Your task to perform on an android device: see tabs open on other devices in the chrome app Image 0: 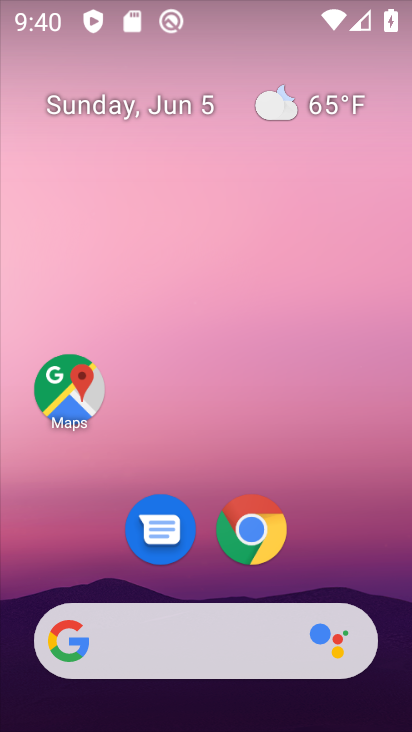
Step 0: click (272, 534)
Your task to perform on an android device: see tabs open on other devices in the chrome app Image 1: 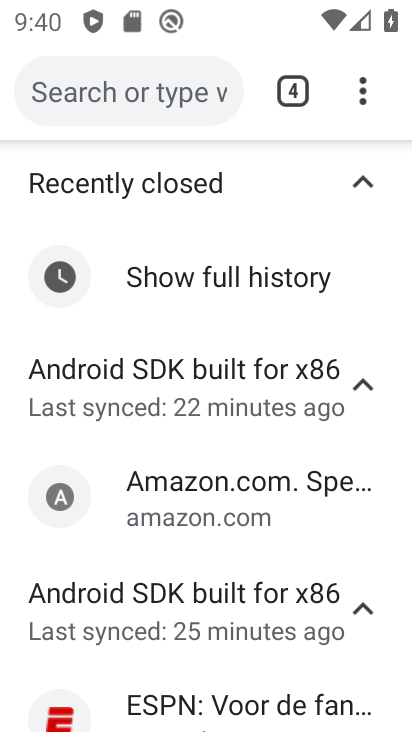
Step 1: click (362, 91)
Your task to perform on an android device: see tabs open on other devices in the chrome app Image 2: 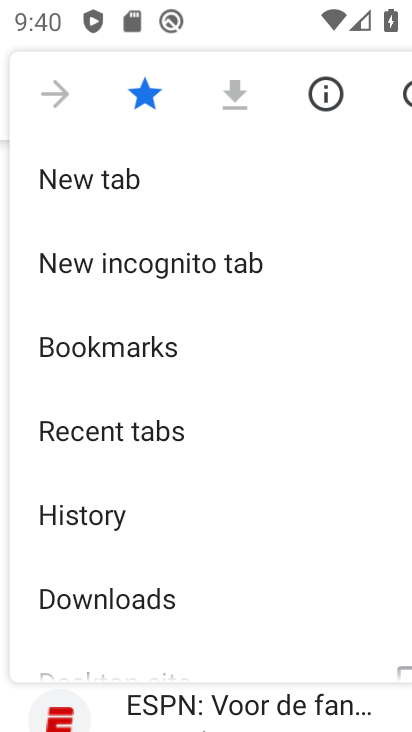
Step 2: click (125, 421)
Your task to perform on an android device: see tabs open on other devices in the chrome app Image 3: 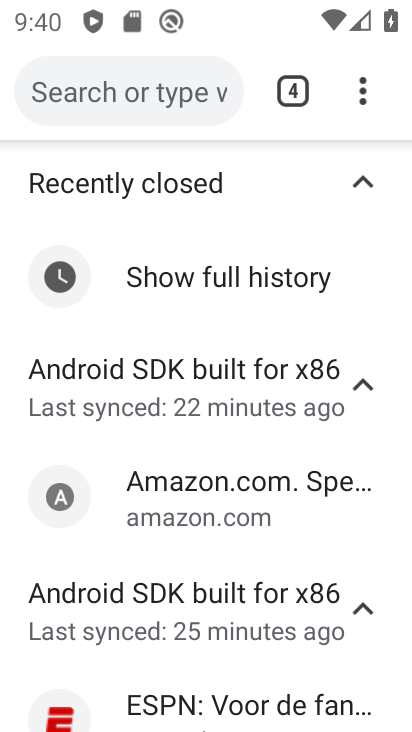
Step 3: click (359, 88)
Your task to perform on an android device: see tabs open on other devices in the chrome app Image 4: 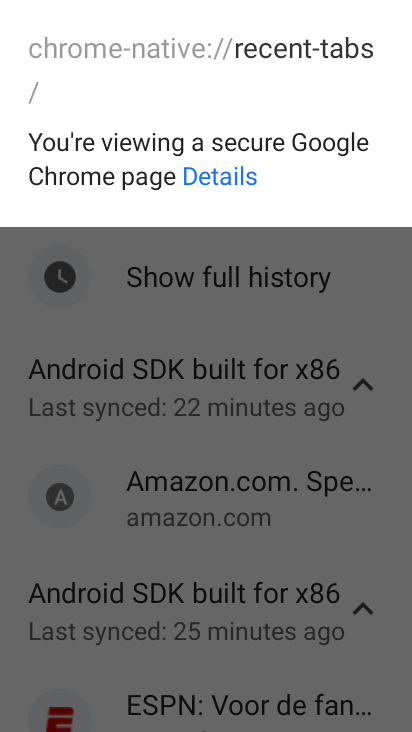
Step 4: click (399, 290)
Your task to perform on an android device: see tabs open on other devices in the chrome app Image 5: 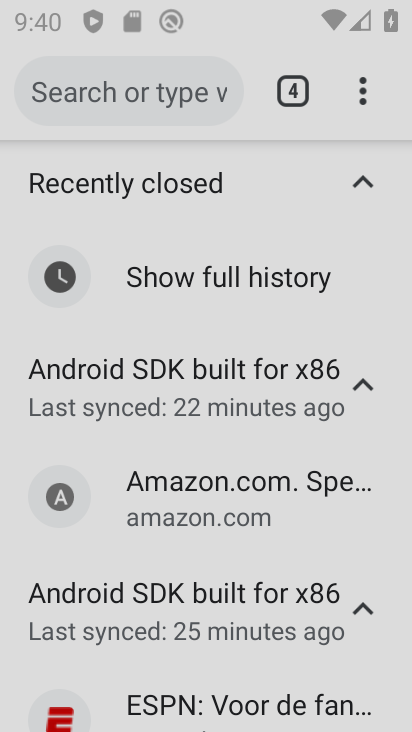
Step 5: task complete